Your task to perform on an android device: Open calendar and show me the third week of next month Image 0: 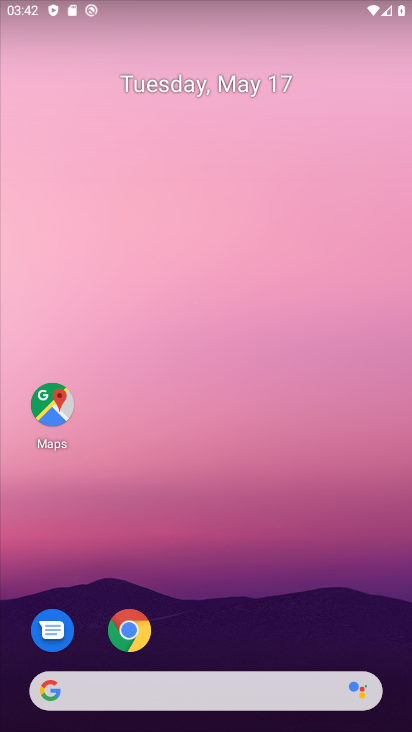
Step 0: drag from (221, 602) to (279, 222)
Your task to perform on an android device: Open calendar and show me the third week of next month Image 1: 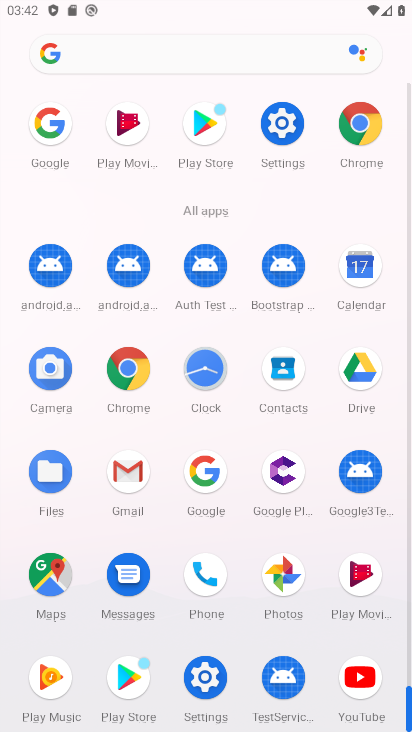
Step 1: click (366, 268)
Your task to perform on an android device: Open calendar and show me the third week of next month Image 2: 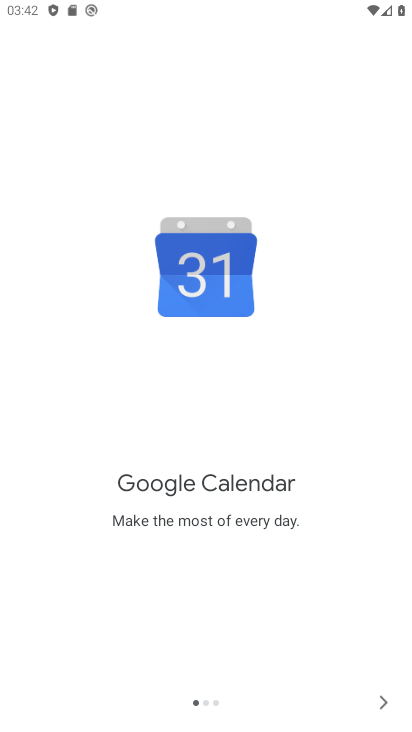
Step 2: click (381, 697)
Your task to perform on an android device: Open calendar and show me the third week of next month Image 3: 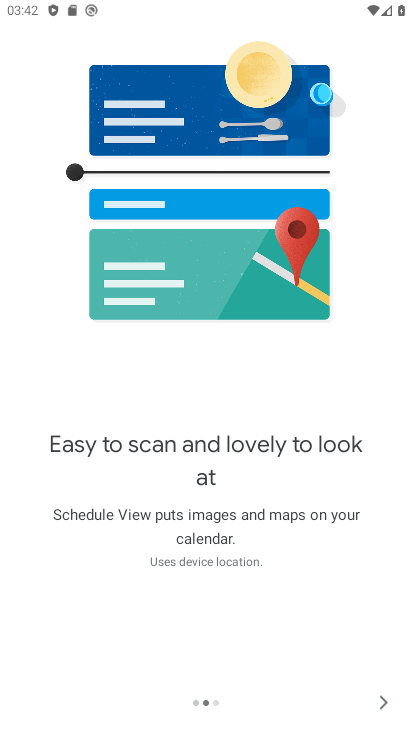
Step 3: click (381, 697)
Your task to perform on an android device: Open calendar and show me the third week of next month Image 4: 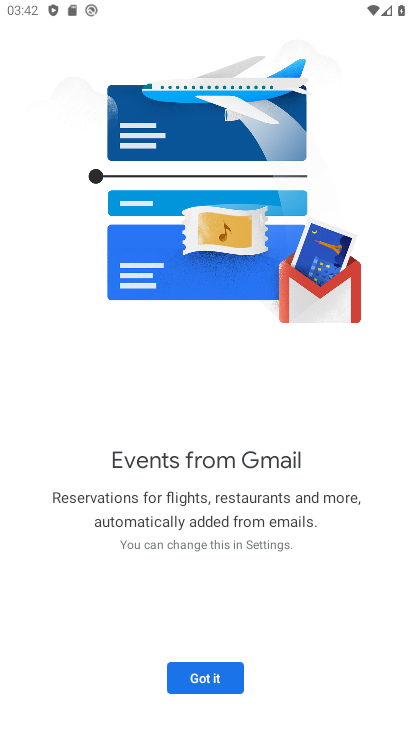
Step 4: click (206, 663)
Your task to perform on an android device: Open calendar and show me the third week of next month Image 5: 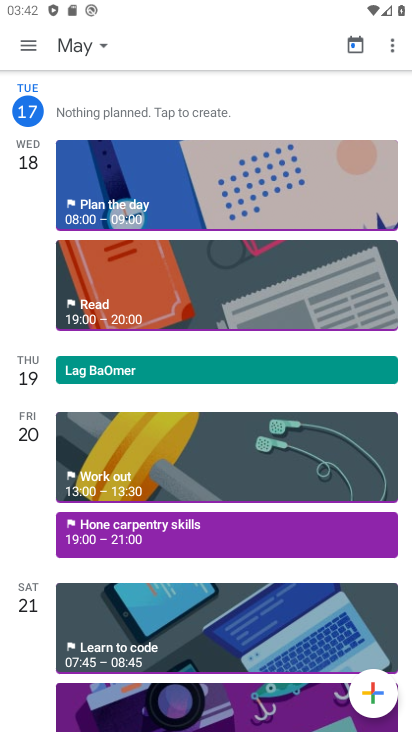
Step 5: click (97, 41)
Your task to perform on an android device: Open calendar and show me the third week of next month Image 6: 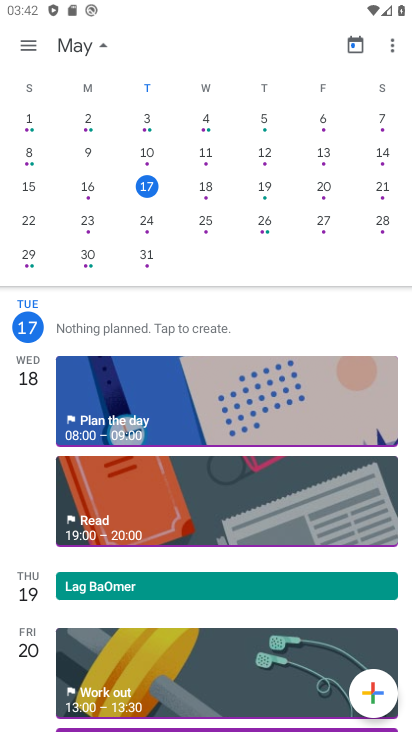
Step 6: drag from (383, 246) to (2, 236)
Your task to perform on an android device: Open calendar and show me the third week of next month Image 7: 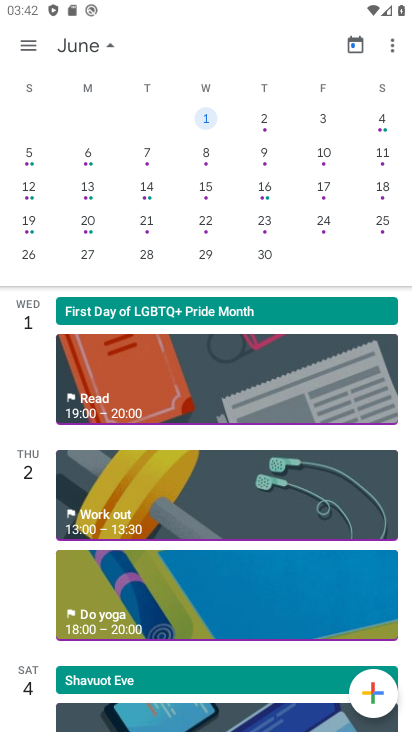
Step 7: click (35, 224)
Your task to perform on an android device: Open calendar and show me the third week of next month Image 8: 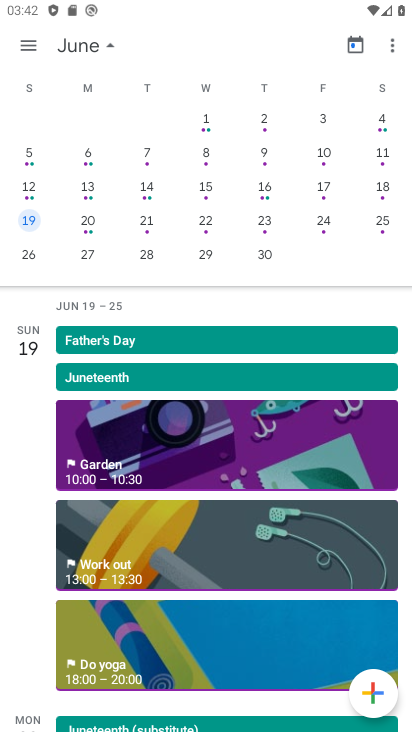
Step 8: click (37, 49)
Your task to perform on an android device: Open calendar and show me the third week of next month Image 9: 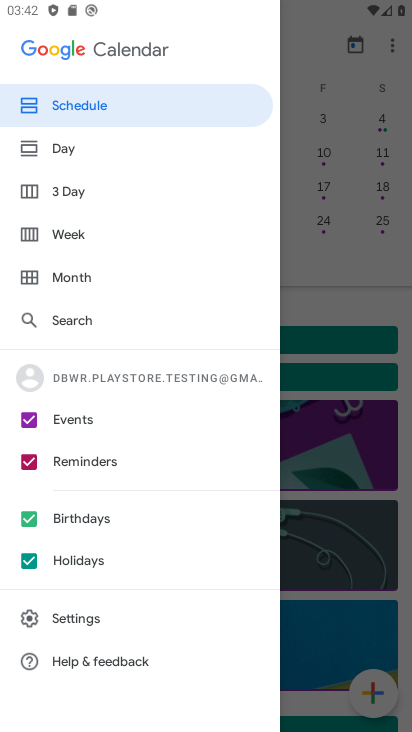
Step 9: click (116, 231)
Your task to perform on an android device: Open calendar and show me the third week of next month Image 10: 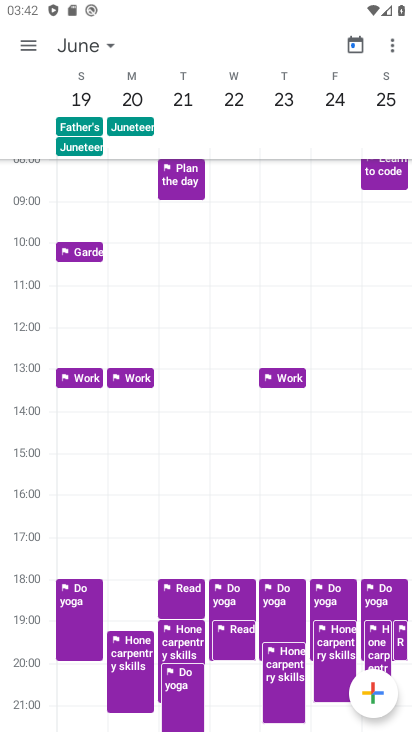
Step 10: task complete